Your task to perform on an android device: choose inbox layout in the gmail app Image 0: 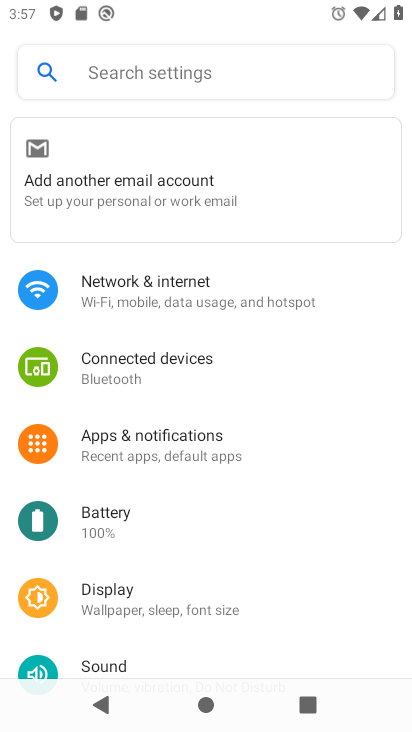
Step 0: press home button
Your task to perform on an android device: choose inbox layout in the gmail app Image 1: 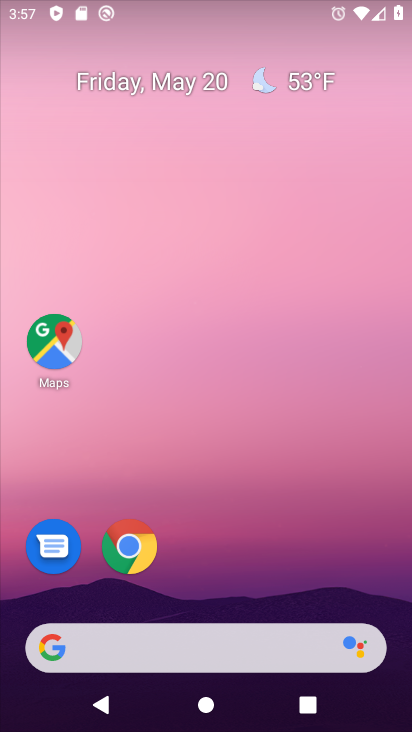
Step 1: drag from (223, 485) to (289, 79)
Your task to perform on an android device: choose inbox layout in the gmail app Image 2: 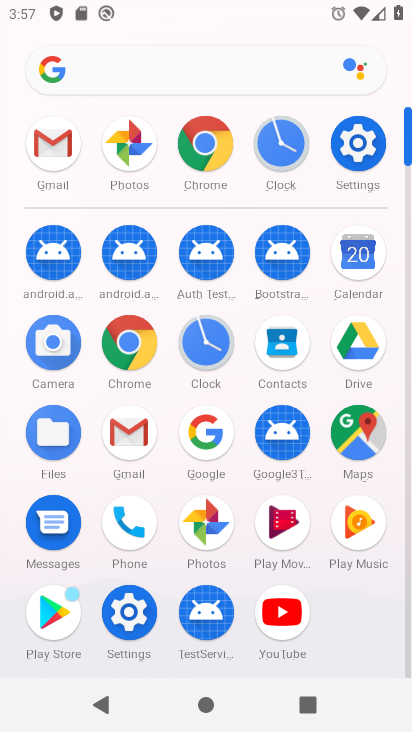
Step 2: click (127, 423)
Your task to perform on an android device: choose inbox layout in the gmail app Image 3: 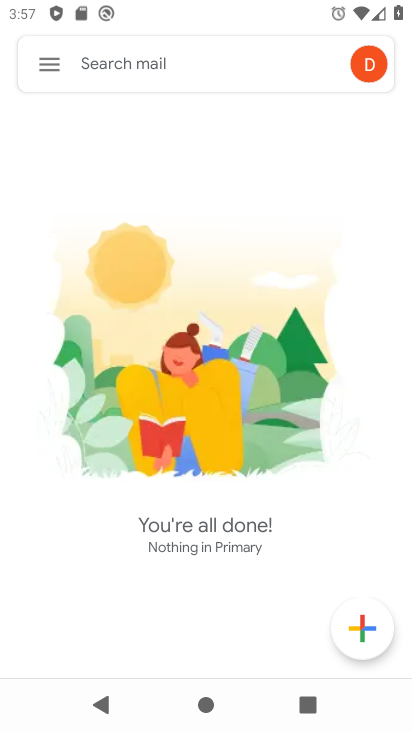
Step 3: click (54, 56)
Your task to perform on an android device: choose inbox layout in the gmail app Image 4: 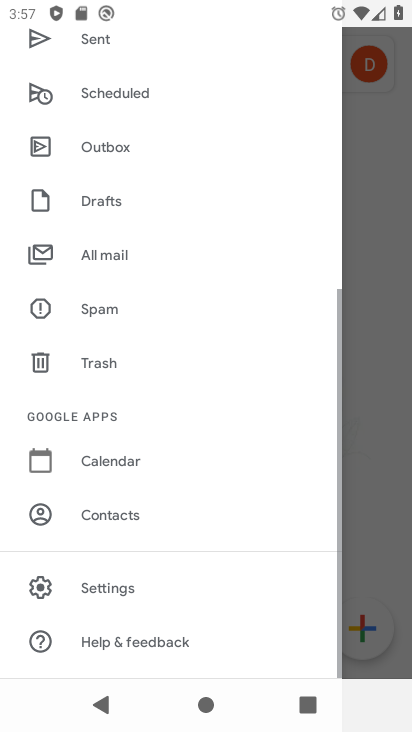
Step 4: drag from (153, 539) to (251, 239)
Your task to perform on an android device: choose inbox layout in the gmail app Image 5: 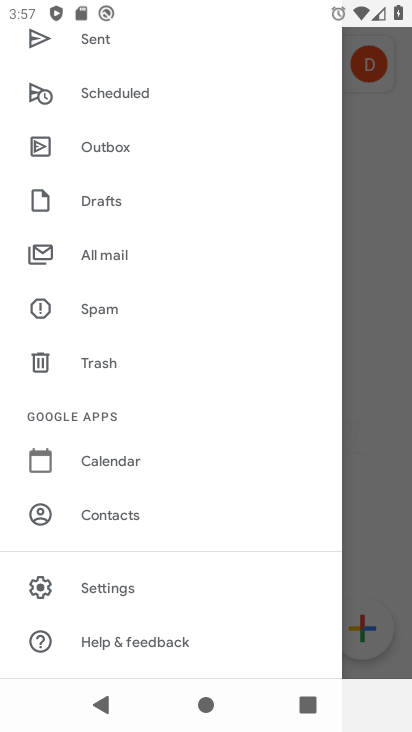
Step 5: click (132, 581)
Your task to perform on an android device: choose inbox layout in the gmail app Image 6: 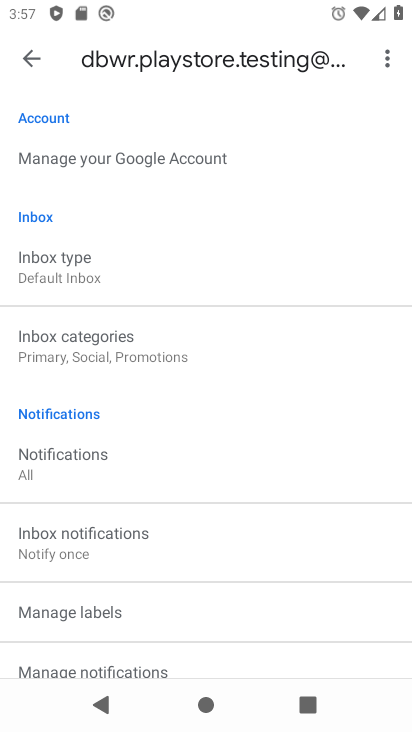
Step 6: click (101, 274)
Your task to perform on an android device: choose inbox layout in the gmail app Image 7: 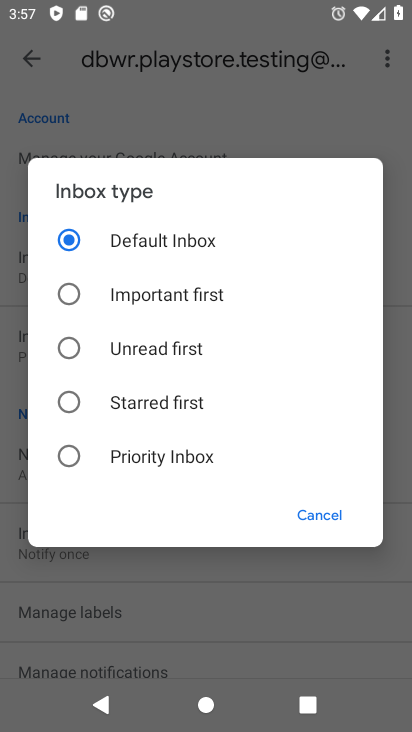
Step 7: task complete